Your task to perform on an android device: turn smart compose on in the gmail app Image 0: 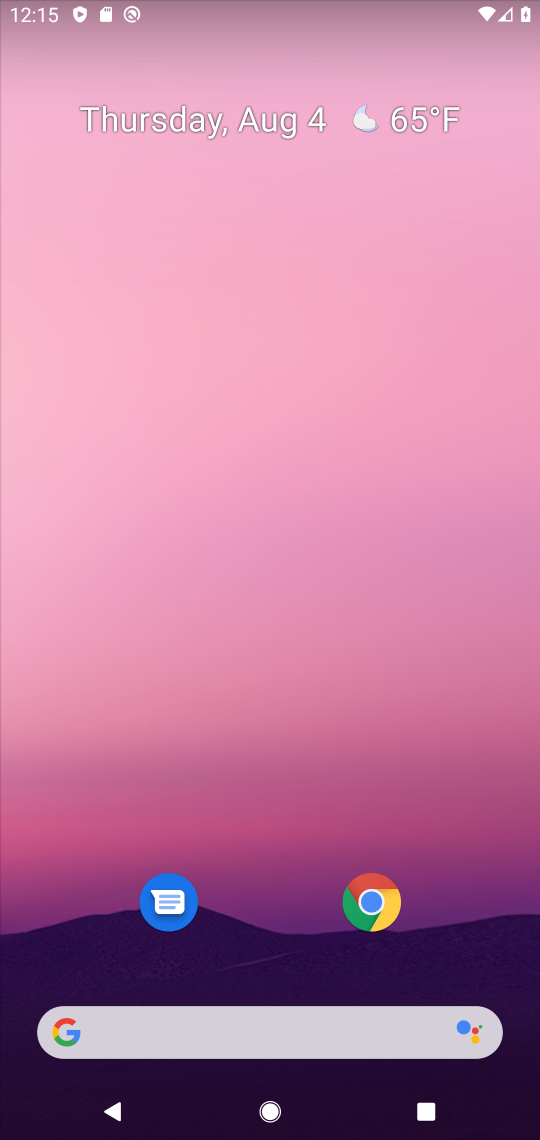
Step 0: drag from (493, 945) to (431, 197)
Your task to perform on an android device: turn smart compose on in the gmail app Image 1: 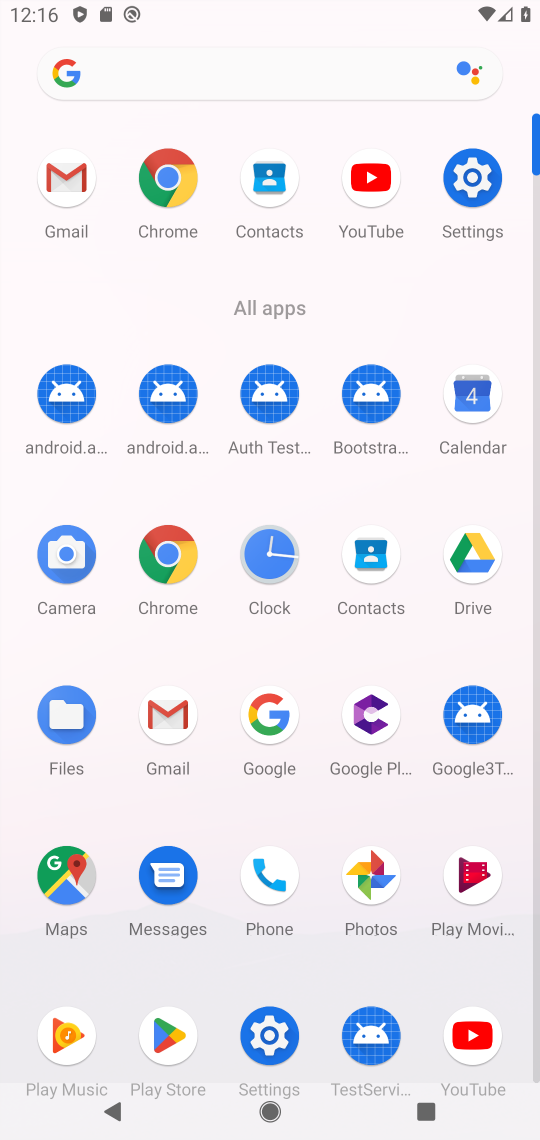
Step 1: click (166, 715)
Your task to perform on an android device: turn smart compose on in the gmail app Image 2: 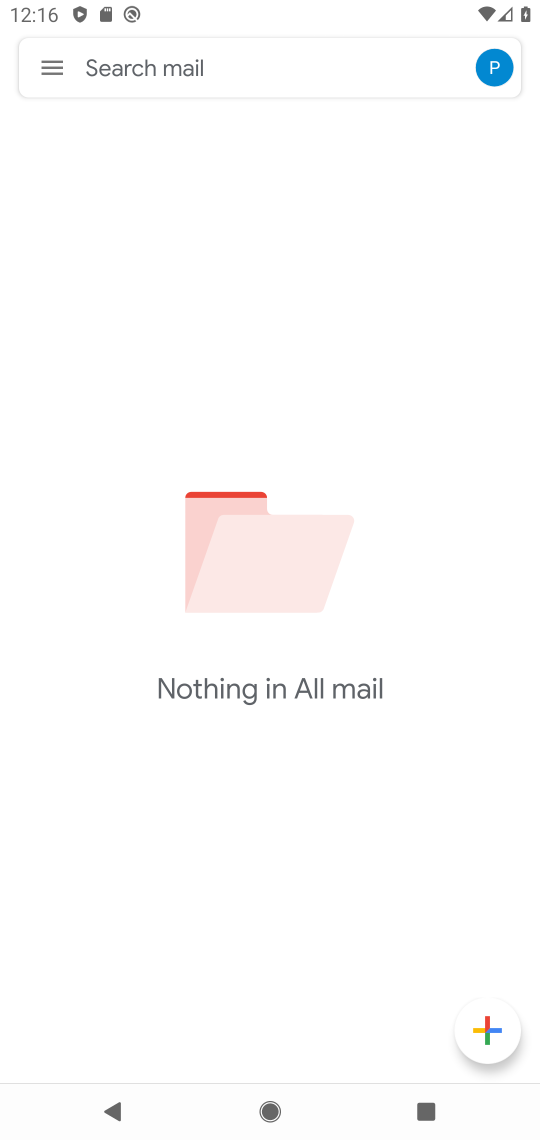
Step 2: click (50, 75)
Your task to perform on an android device: turn smart compose on in the gmail app Image 3: 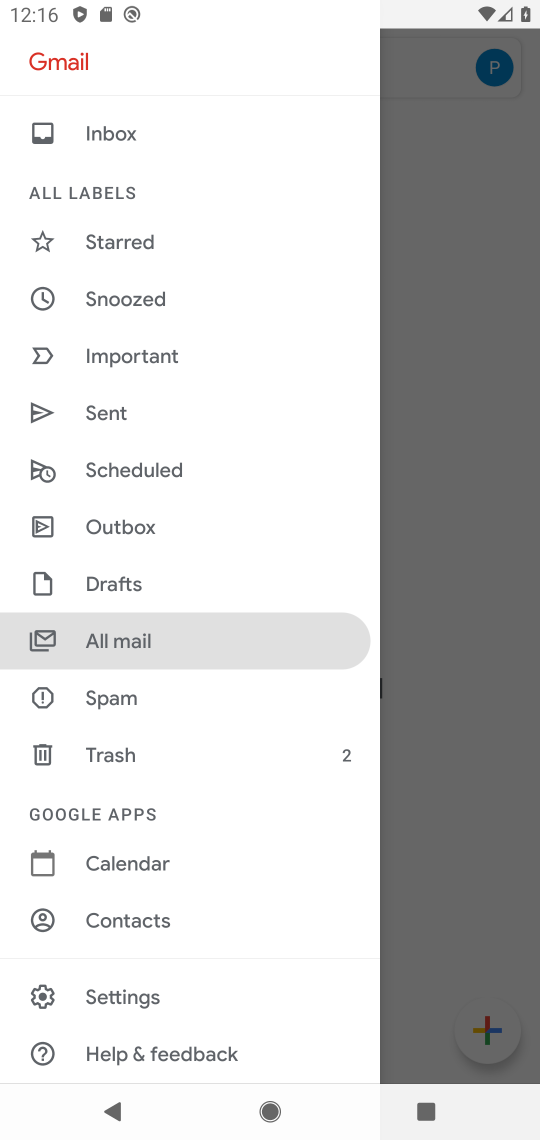
Step 3: click (114, 997)
Your task to perform on an android device: turn smart compose on in the gmail app Image 4: 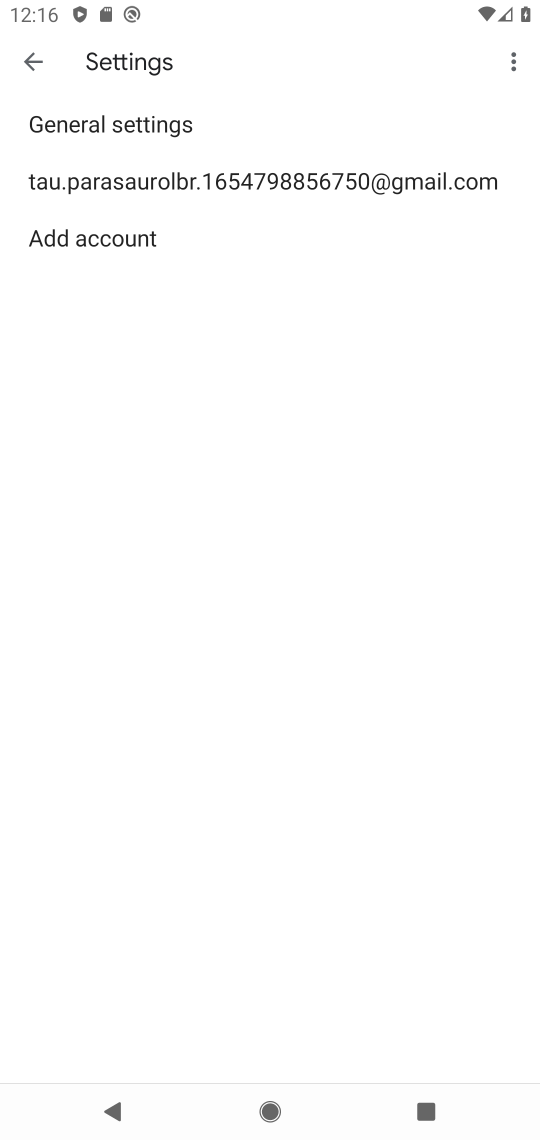
Step 4: click (220, 173)
Your task to perform on an android device: turn smart compose on in the gmail app Image 5: 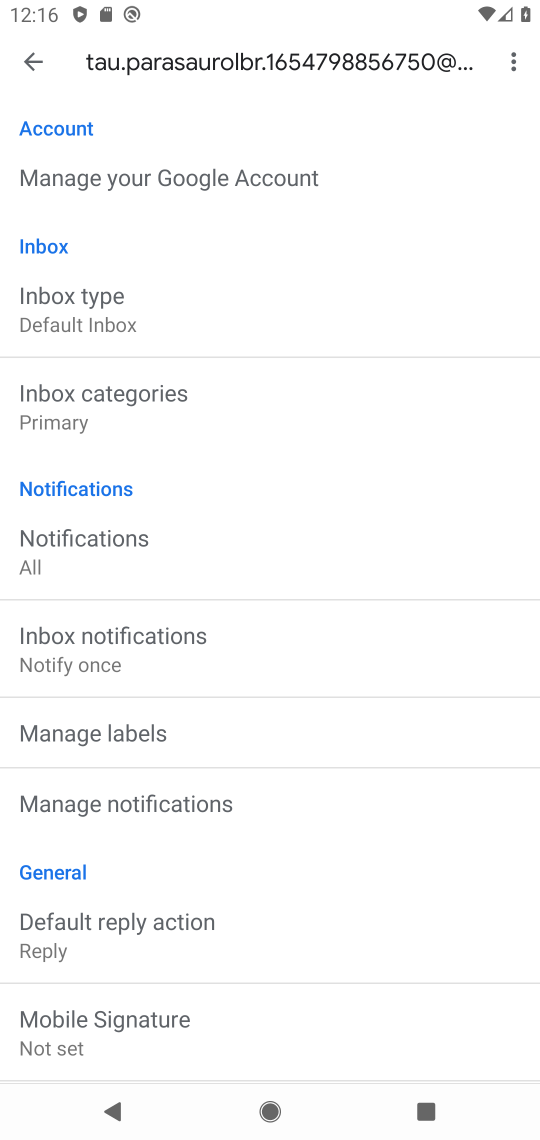
Step 5: task complete